Your task to perform on an android device: toggle show notifications on the lock screen Image 0: 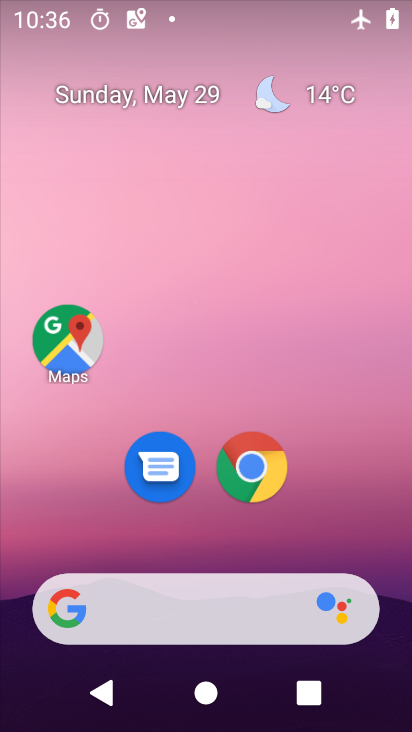
Step 0: drag from (201, 543) to (202, 157)
Your task to perform on an android device: toggle show notifications on the lock screen Image 1: 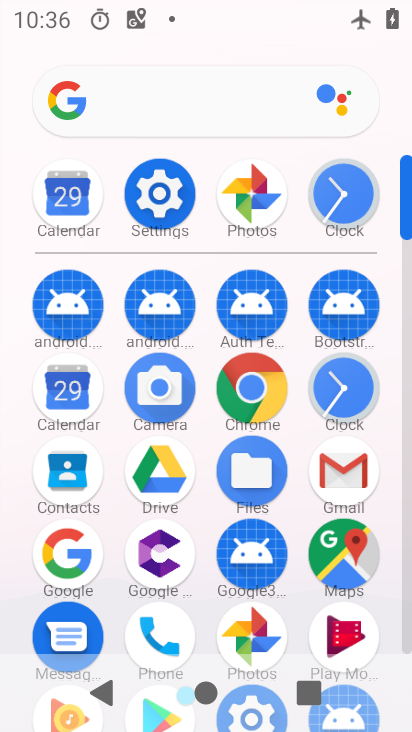
Step 1: click (182, 209)
Your task to perform on an android device: toggle show notifications on the lock screen Image 2: 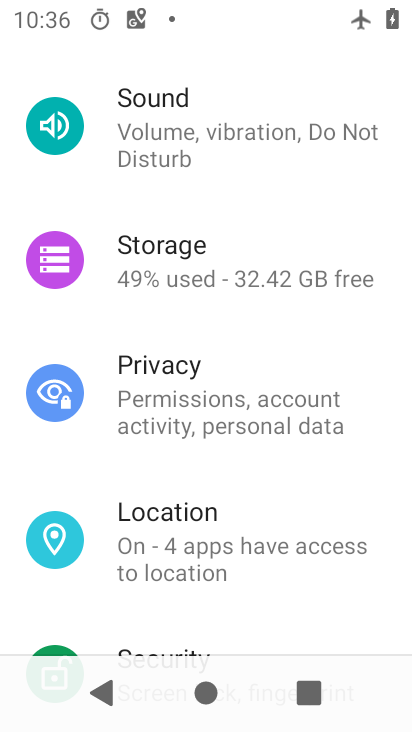
Step 2: drag from (222, 184) to (259, 597)
Your task to perform on an android device: toggle show notifications on the lock screen Image 3: 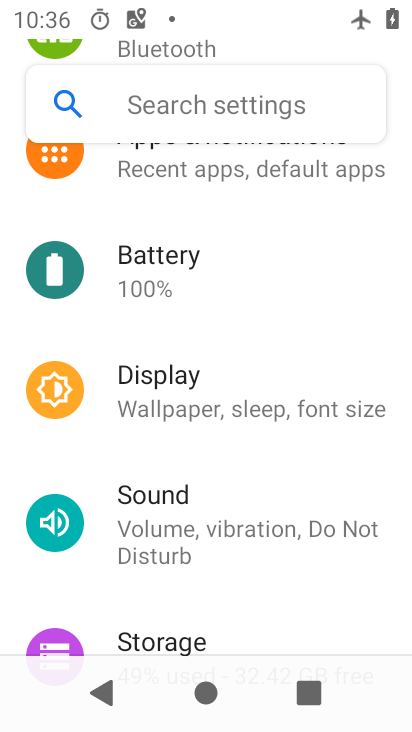
Step 3: drag from (253, 229) to (290, 576)
Your task to perform on an android device: toggle show notifications on the lock screen Image 4: 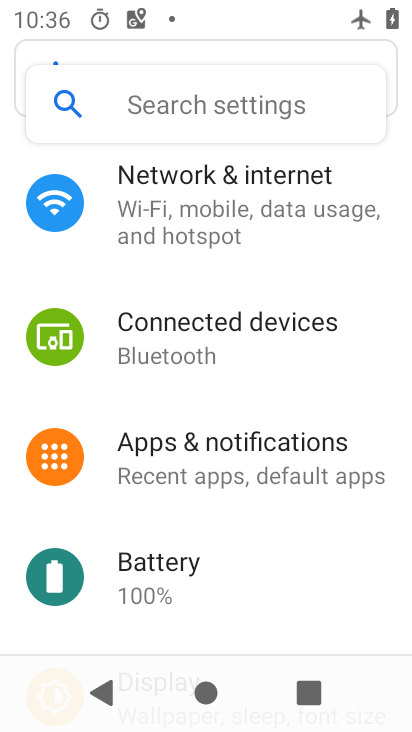
Step 4: click (213, 450)
Your task to perform on an android device: toggle show notifications on the lock screen Image 5: 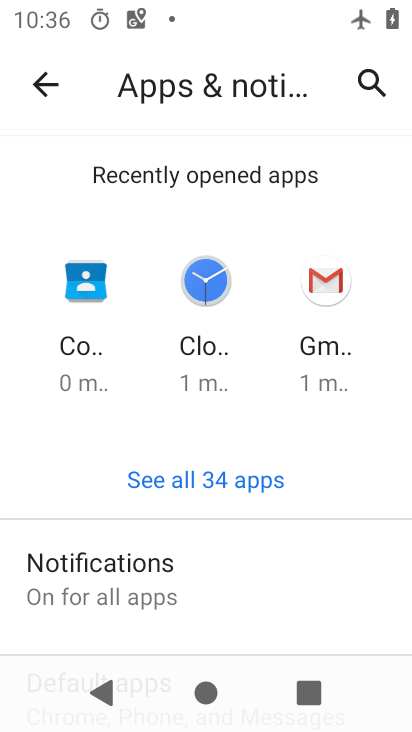
Step 5: click (175, 565)
Your task to perform on an android device: toggle show notifications on the lock screen Image 6: 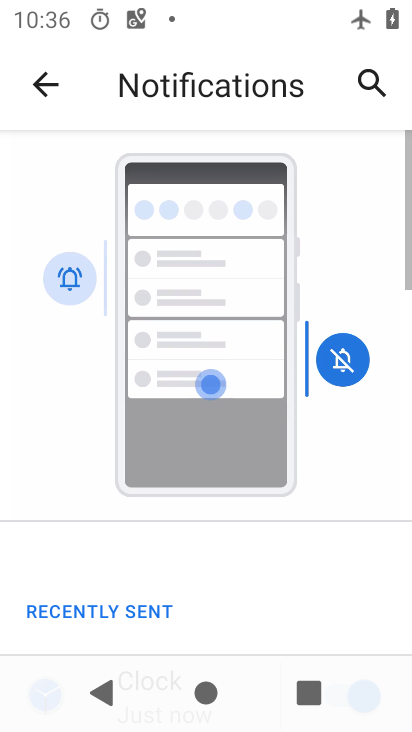
Step 6: drag from (177, 565) to (188, 234)
Your task to perform on an android device: toggle show notifications on the lock screen Image 7: 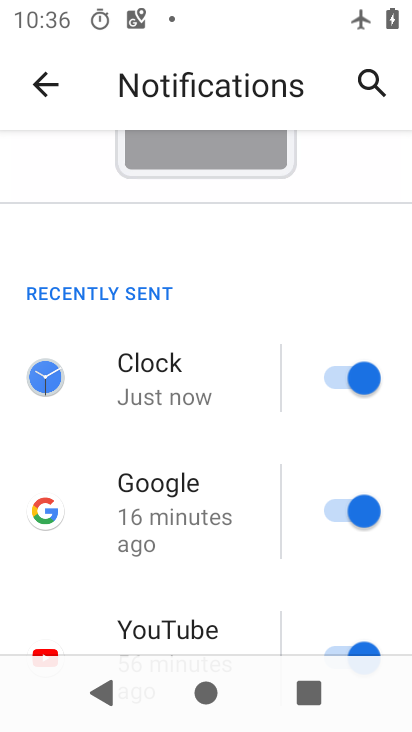
Step 7: drag from (196, 527) to (199, 201)
Your task to perform on an android device: toggle show notifications on the lock screen Image 8: 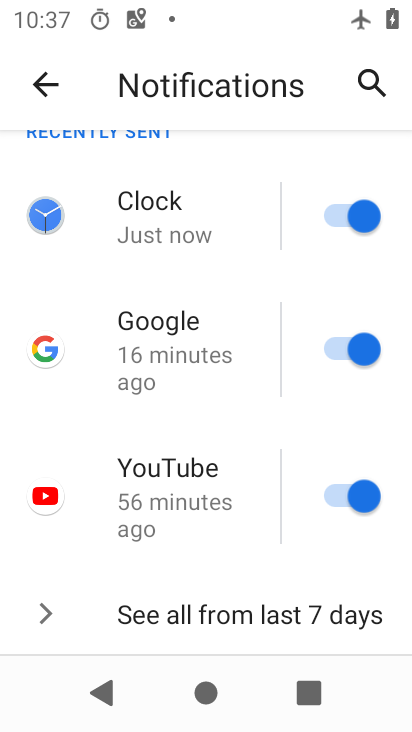
Step 8: drag from (245, 584) to (229, 392)
Your task to perform on an android device: toggle show notifications on the lock screen Image 9: 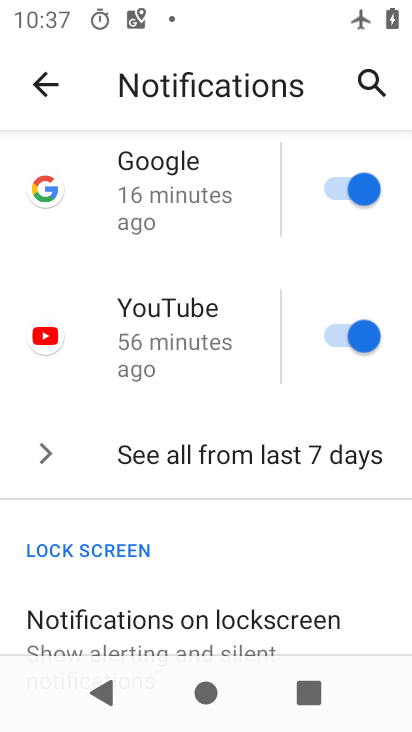
Step 9: click (206, 614)
Your task to perform on an android device: toggle show notifications on the lock screen Image 10: 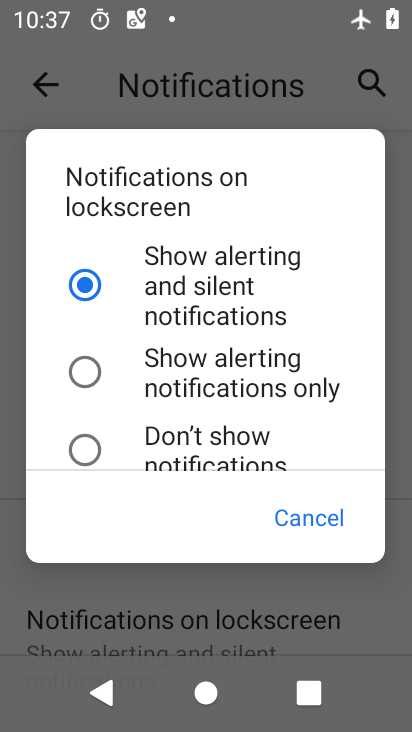
Step 10: click (90, 443)
Your task to perform on an android device: toggle show notifications on the lock screen Image 11: 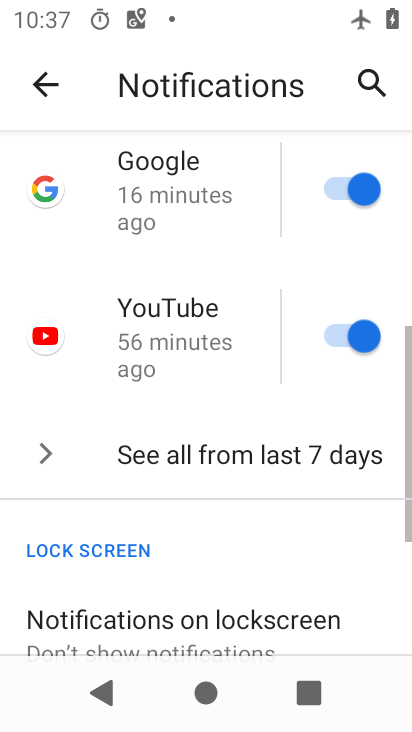
Step 11: task complete